Your task to perform on an android device: turn vacation reply on in the gmail app Image 0: 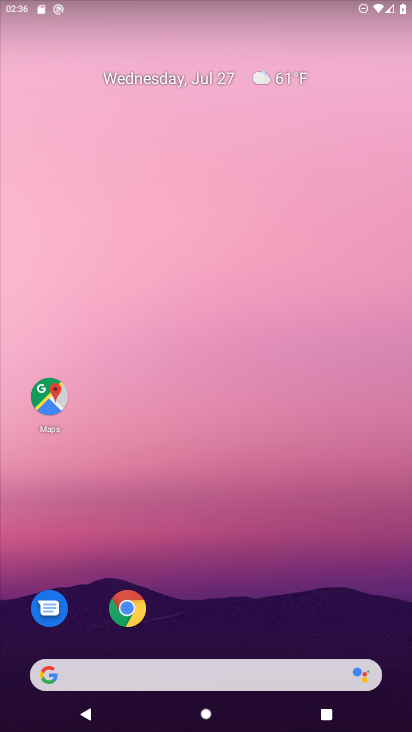
Step 0: drag from (304, 612) to (261, 107)
Your task to perform on an android device: turn vacation reply on in the gmail app Image 1: 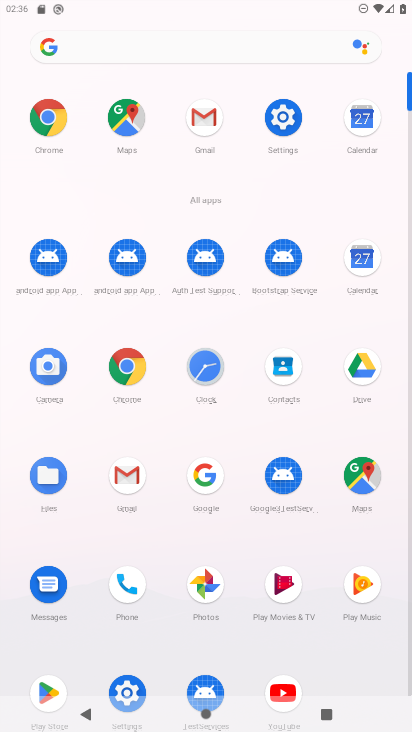
Step 1: click (208, 122)
Your task to perform on an android device: turn vacation reply on in the gmail app Image 2: 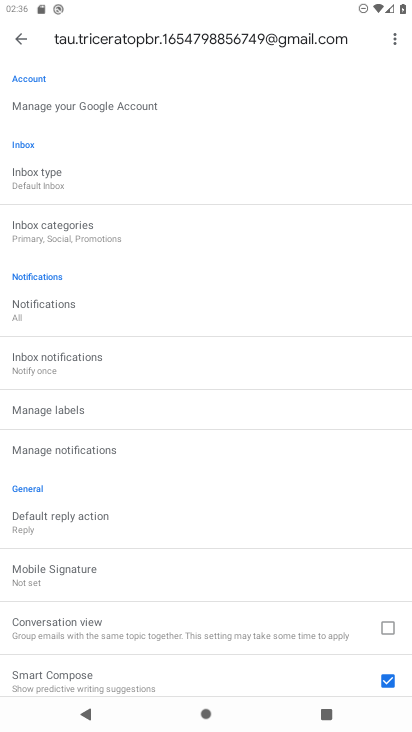
Step 2: drag from (153, 585) to (154, 295)
Your task to perform on an android device: turn vacation reply on in the gmail app Image 3: 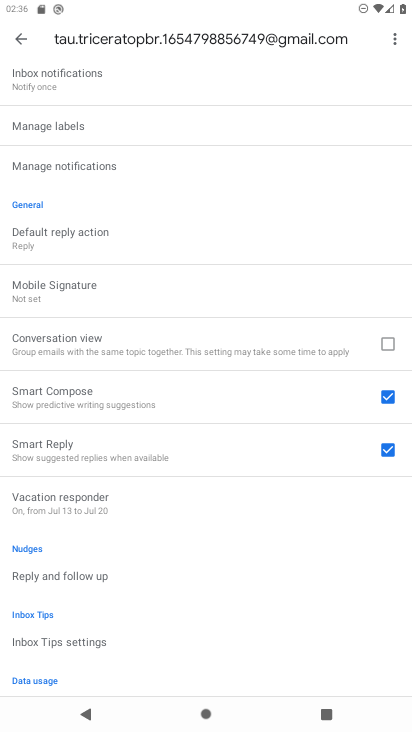
Step 3: click (168, 498)
Your task to perform on an android device: turn vacation reply on in the gmail app Image 4: 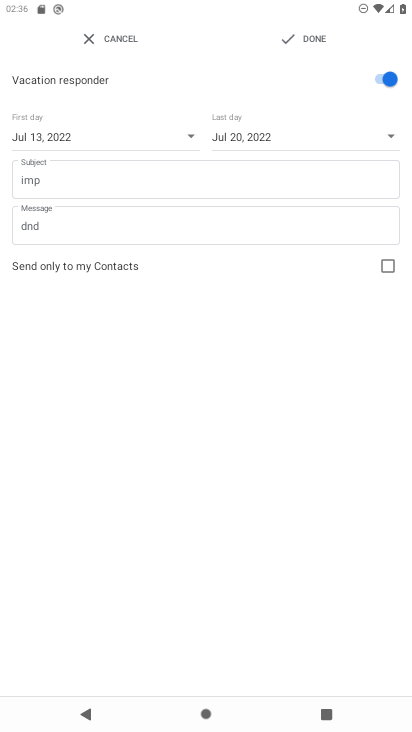
Step 4: click (314, 24)
Your task to perform on an android device: turn vacation reply on in the gmail app Image 5: 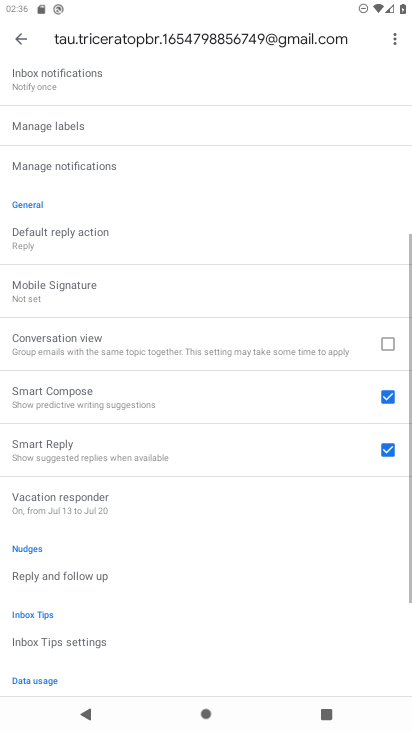
Step 5: task complete